Your task to perform on an android device: open the mobile data screen to see how much data has been used Image 0: 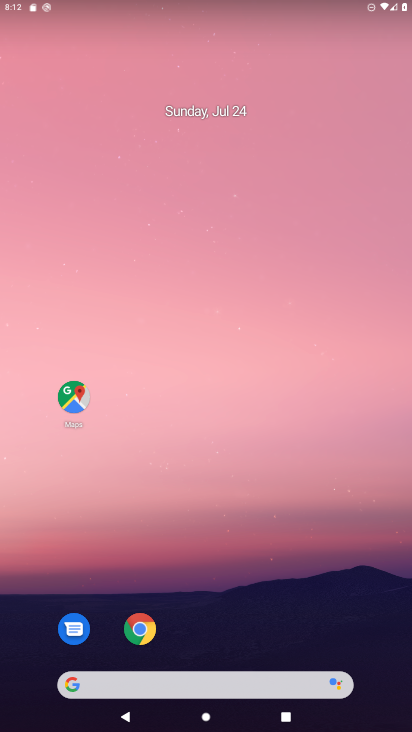
Step 0: drag from (383, 618) to (251, 4)
Your task to perform on an android device: open the mobile data screen to see how much data has been used Image 1: 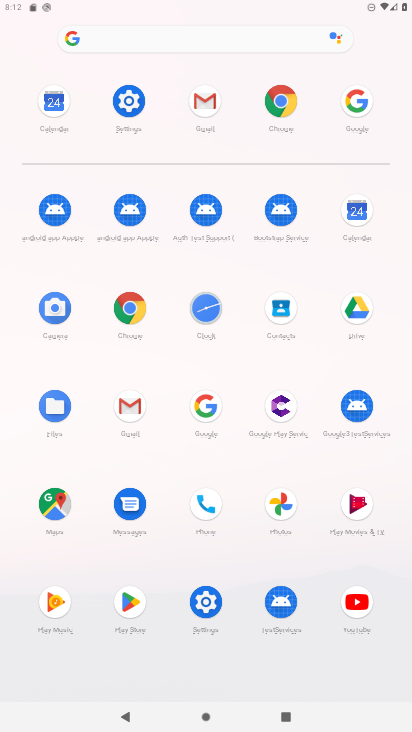
Step 1: click (125, 106)
Your task to perform on an android device: open the mobile data screen to see how much data has been used Image 2: 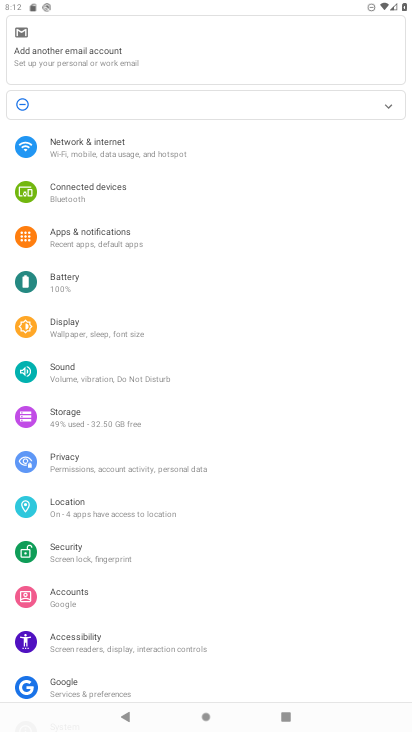
Step 2: press home button
Your task to perform on an android device: open the mobile data screen to see how much data has been used Image 3: 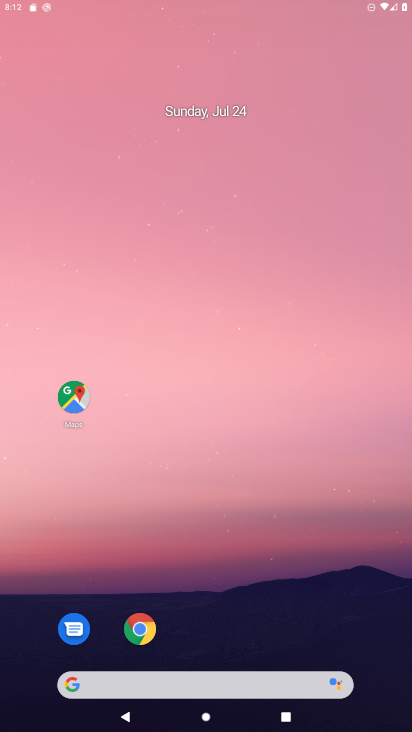
Step 3: drag from (392, 672) to (202, 24)
Your task to perform on an android device: open the mobile data screen to see how much data has been used Image 4: 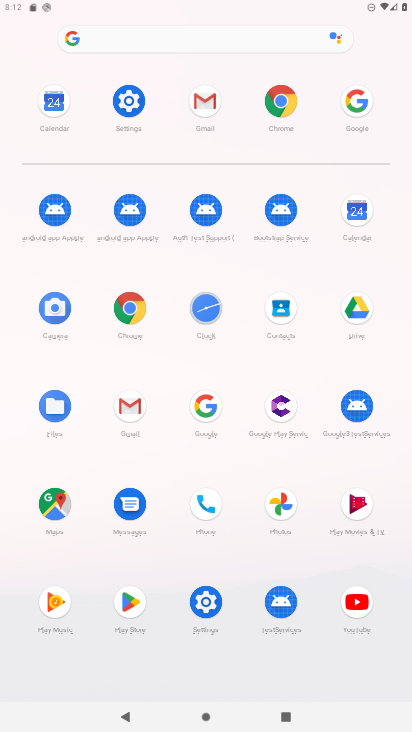
Step 4: click (132, 112)
Your task to perform on an android device: open the mobile data screen to see how much data has been used Image 5: 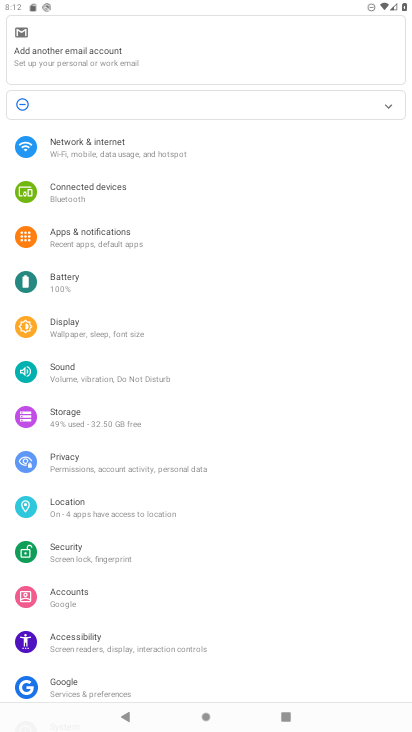
Step 5: click (135, 160)
Your task to perform on an android device: open the mobile data screen to see how much data has been used Image 6: 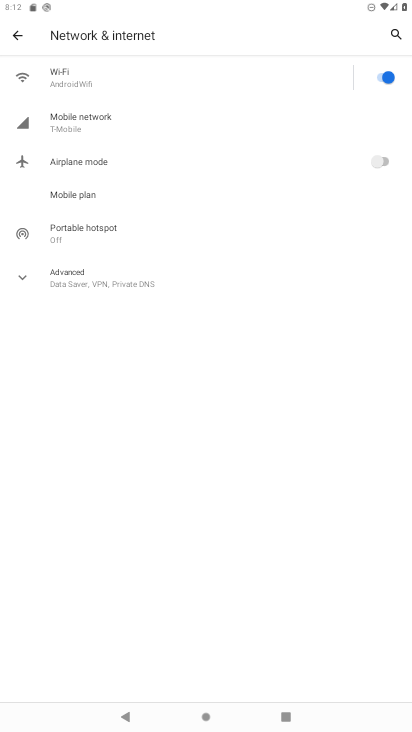
Step 6: click (69, 119)
Your task to perform on an android device: open the mobile data screen to see how much data has been used Image 7: 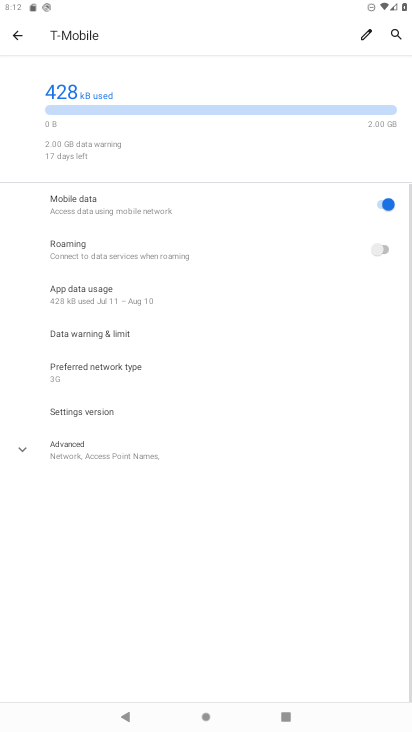
Step 7: click (117, 300)
Your task to perform on an android device: open the mobile data screen to see how much data has been used Image 8: 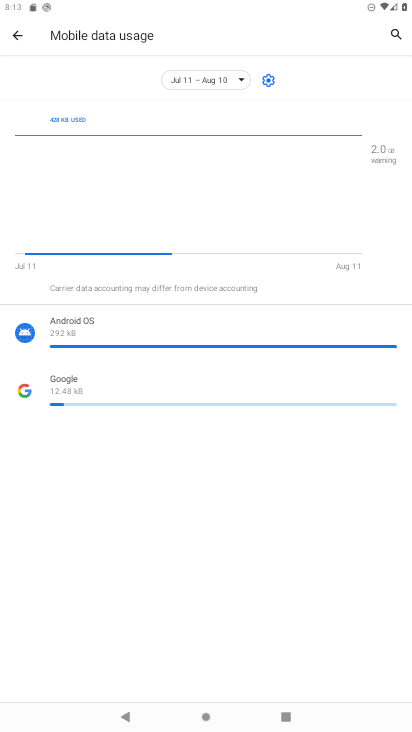
Step 8: task complete